Your task to perform on an android device: Go to network settings Image 0: 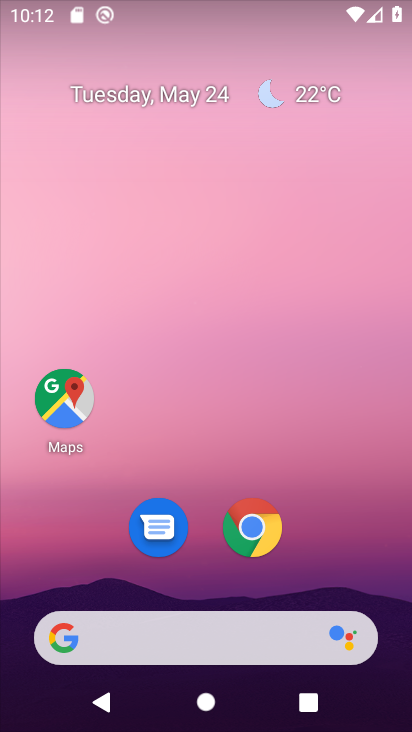
Step 0: press home button
Your task to perform on an android device: Go to network settings Image 1: 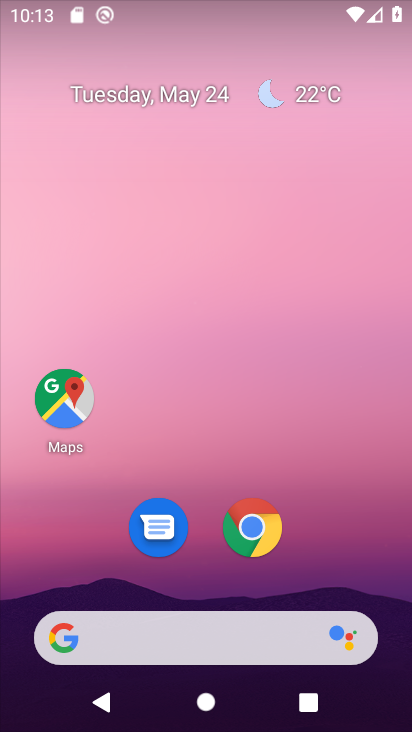
Step 1: drag from (145, 629) to (233, 221)
Your task to perform on an android device: Go to network settings Image 2: 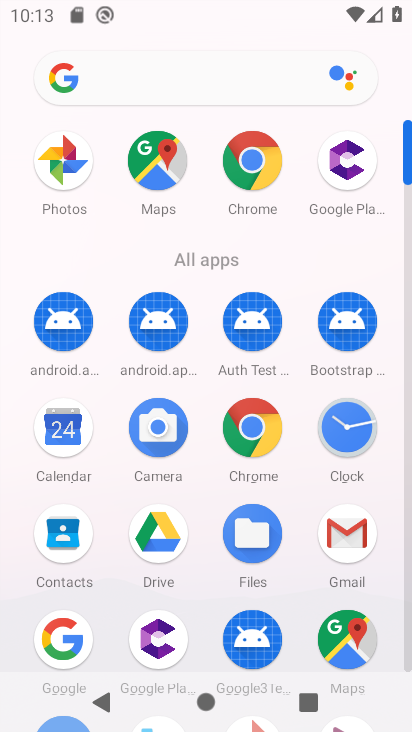
Step 2: drag from (197, 568) to (302, 263)
Your task to perform on an android device: Go to network settings Image 3: 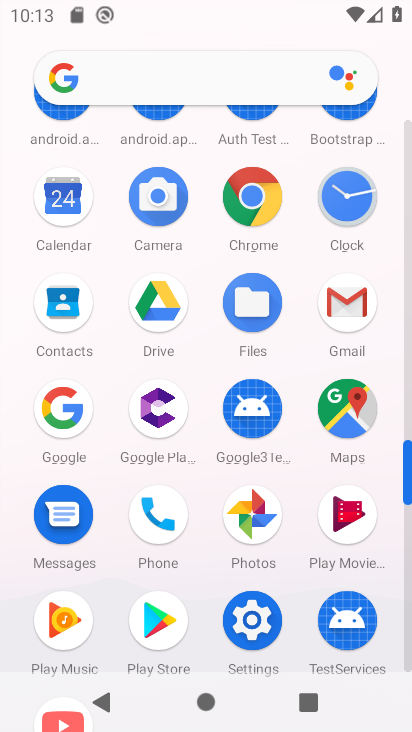
Step 3: click (260, 619)
Your task to perform on an android device: Go to network settings Image 4: 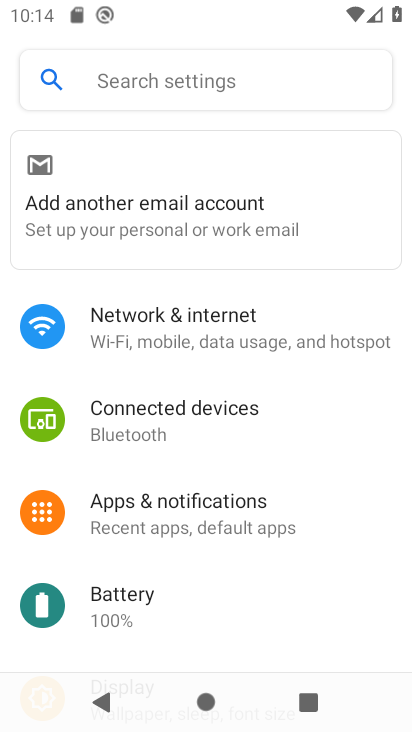
Step 4: click (170, 330)
Your task to perform on an android device: Go to network settings Image 5: 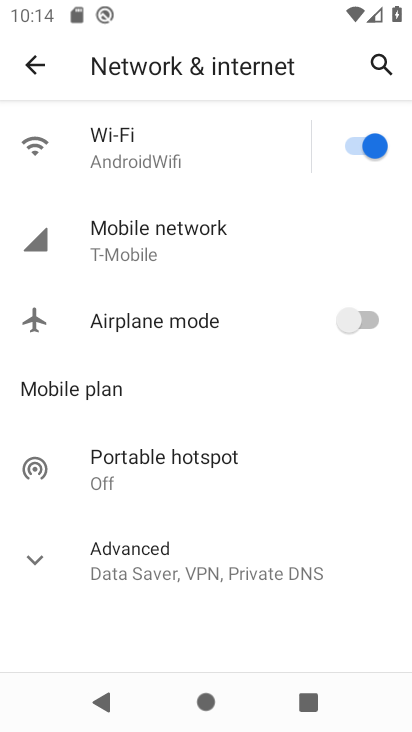
Step 5: task complete